Your task to perform on an android device: Go to wifi settings Image 0: 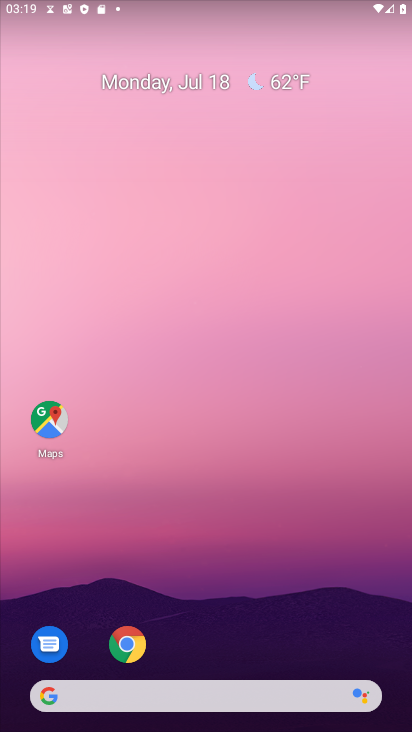
Step 0: click (79, 364)
Your task to perform on an android device: Go to wifi settings Image 1: 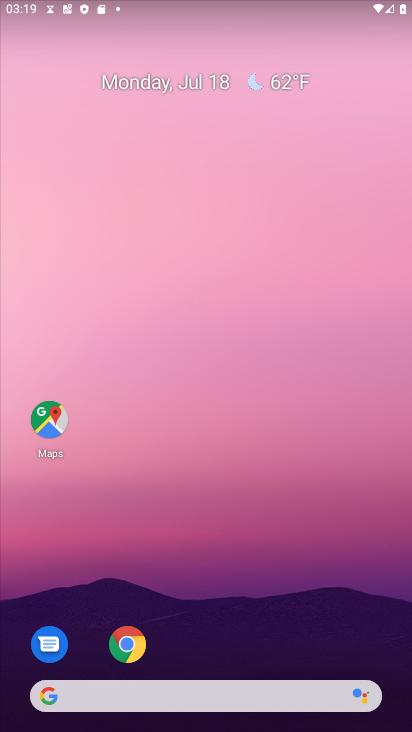
Step 1: drag from (188, 700) to (195, 180)
Your task to perform on an android device: Go to wifi settings Image 2: 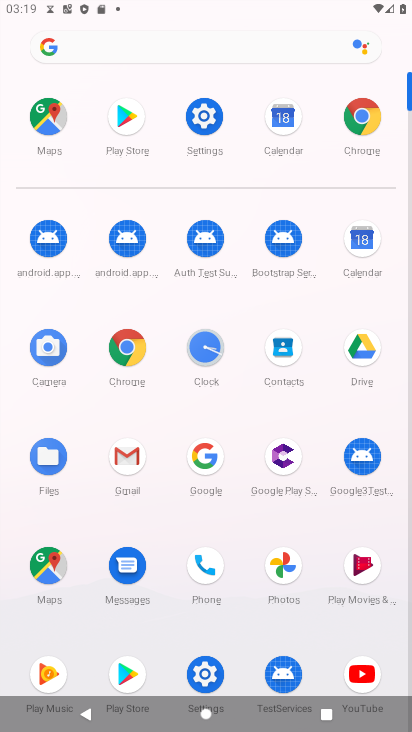
Step 2: drag from (391, 645) to (396, 307)
Your task to perform on an android device: Go to wifi settings Image 3: 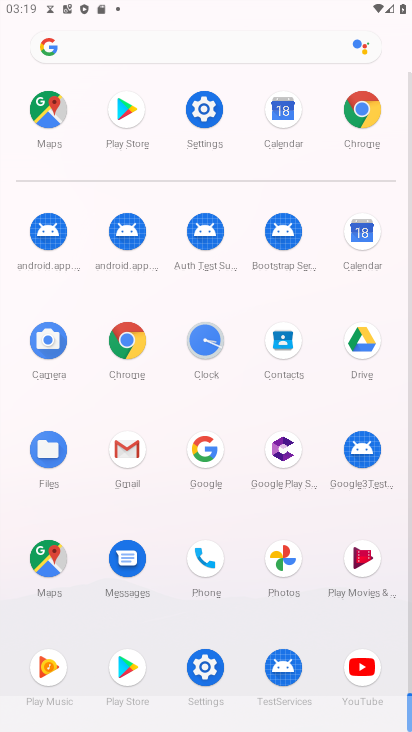
Step 3: drag from (201, 630) to (220, 669)
Your task to perform on an android device: Go to wifi settings Image 4: 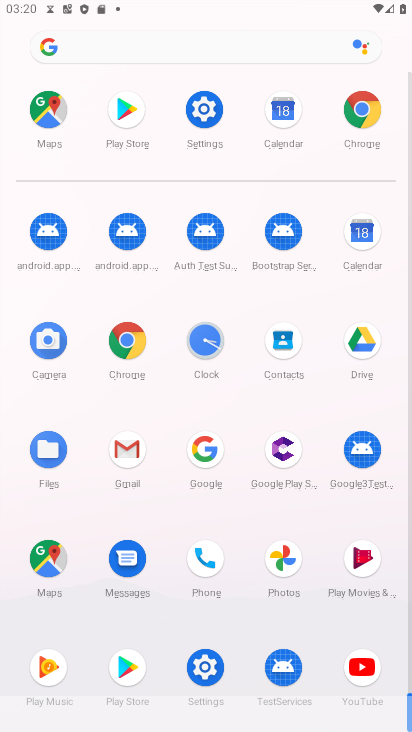
Step 4: click (215, 665)
Your task to perform on an android device: Go to wifi settings Image 5: 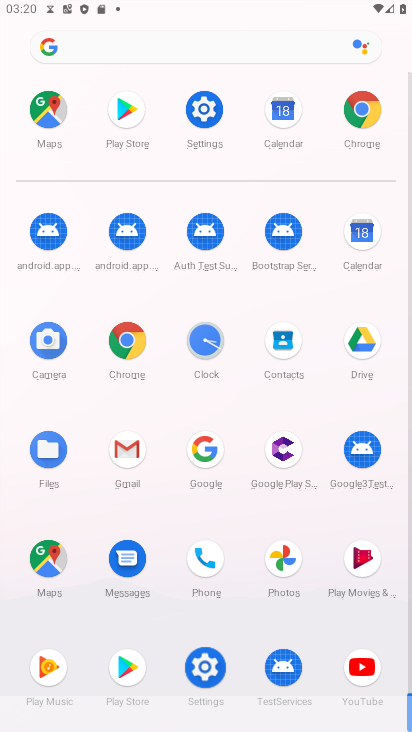
Step 5: click (214, 665)
Your task to perform on an android device: Go to wifi settings Image 6: 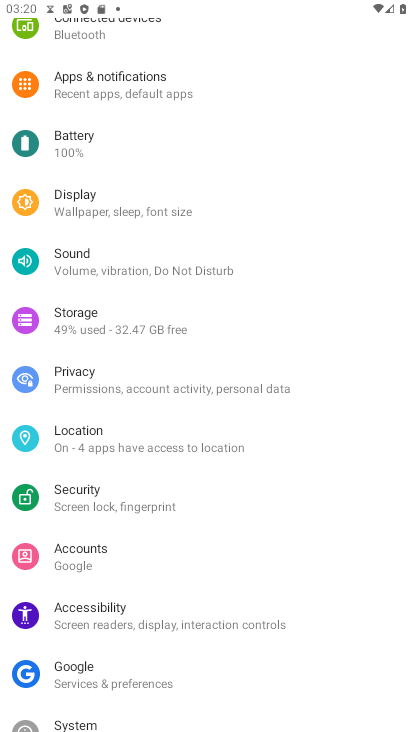
Step 6: drag from (124, 102) to (142, 678)
Your task to perform on an android device: Go to wifi settings Image 7: 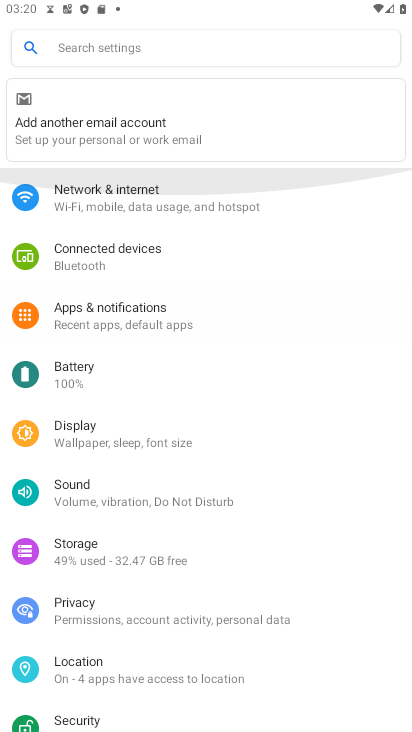
Step 7: drag from (138, 302) to (194, 613)
Your task to perform on an android device: Go to wifi settings Image 8: 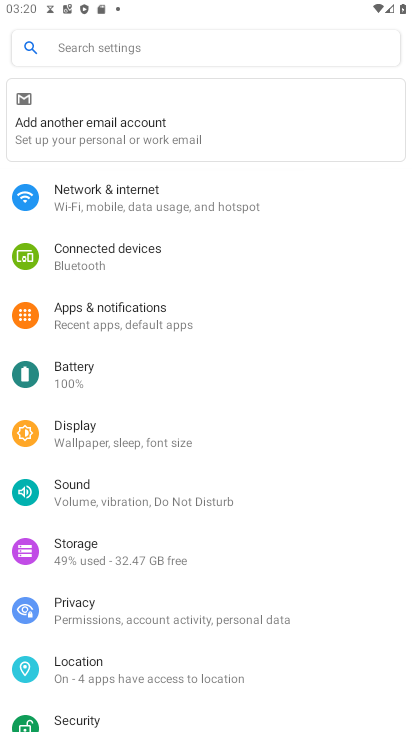
Step 8: click (122, 193)
Your task to perform on an android device: Go to wifi settings Image 9: 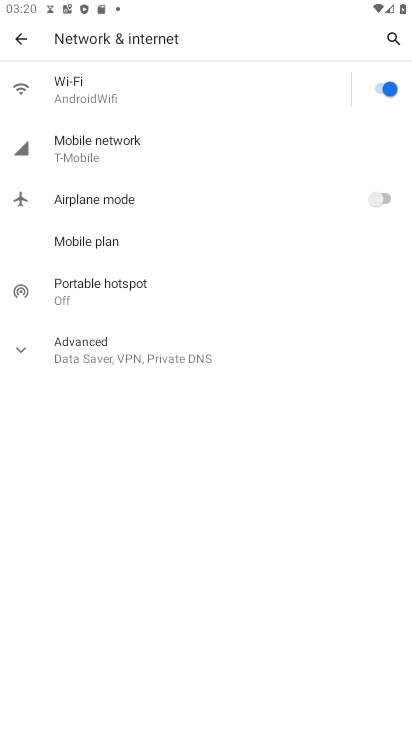
Step 9: task complete